Your task to perform on an android device: Search for the best rated 2021 Samsung Galaxy S21 Ultra on AliExpress Image 0: 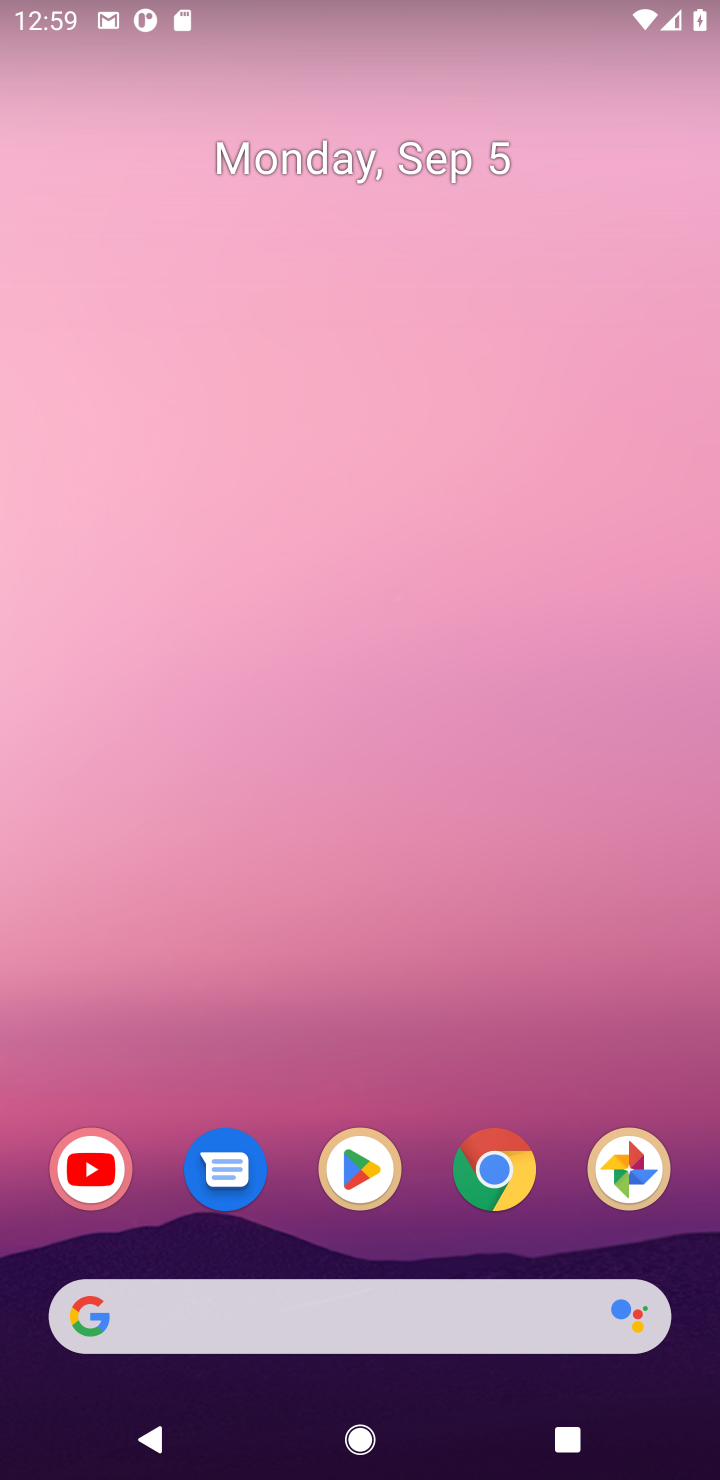
Step 0: click (354, 1197)
Your task to perform on an android device: Search for the best rated 2021 Samsung Galaxy S21 Ultra on AliExpress Image 1: 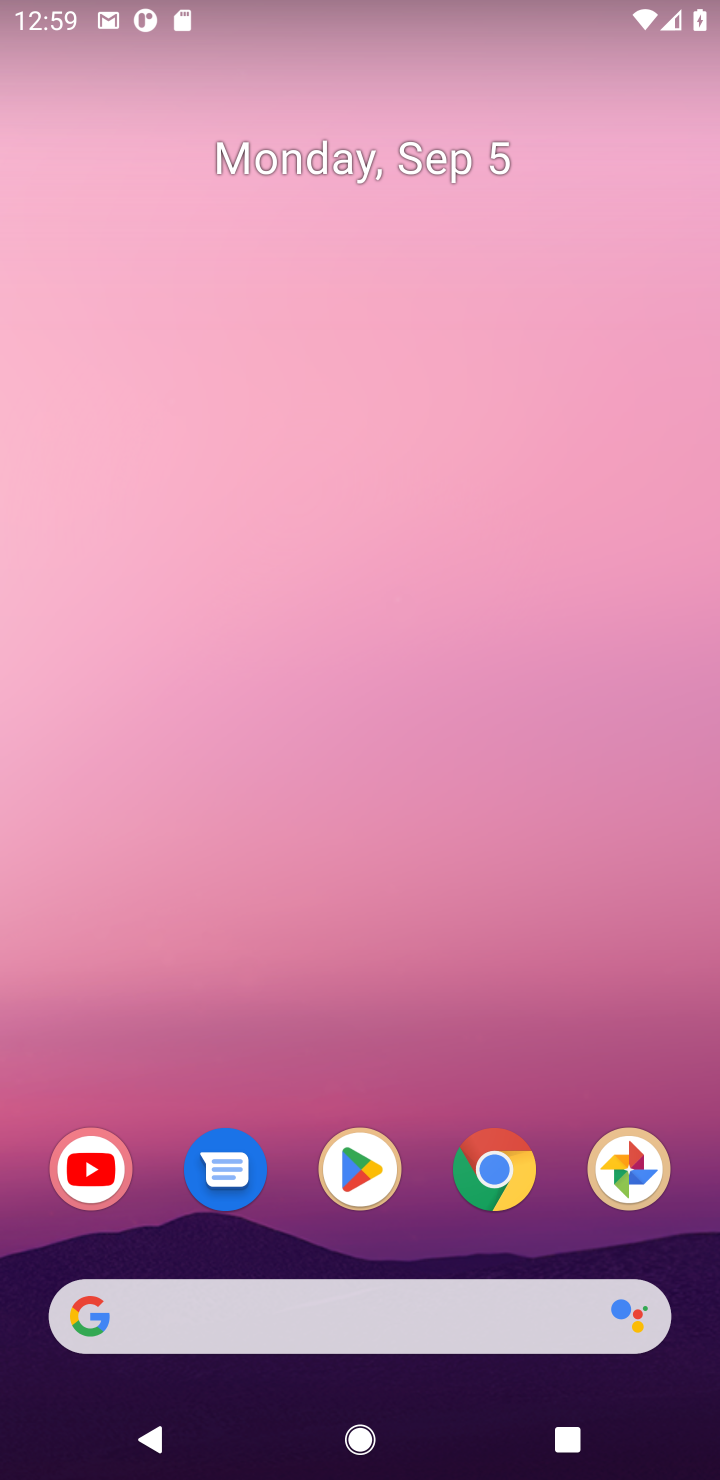
Step 1: task complete